Your task to perform on an android device: Turn off the flashlight Image 0: 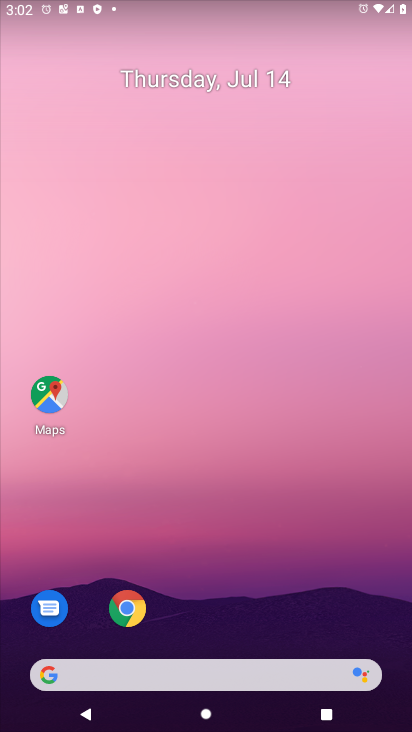
Step 0: drag from (219, 13) to (268, 481)
Your task to perform on an android device: Turn off the flashlight Image 1: 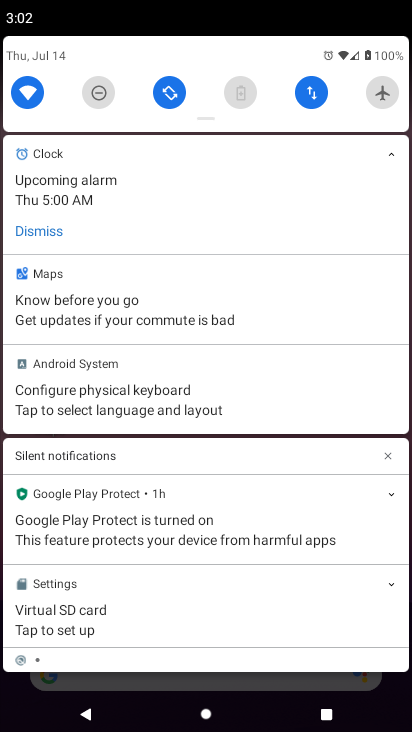
Step 1: drag from (205, 118) to (182, 404)
Your task to perform on an android device: Turn off the flashlight Image 2: 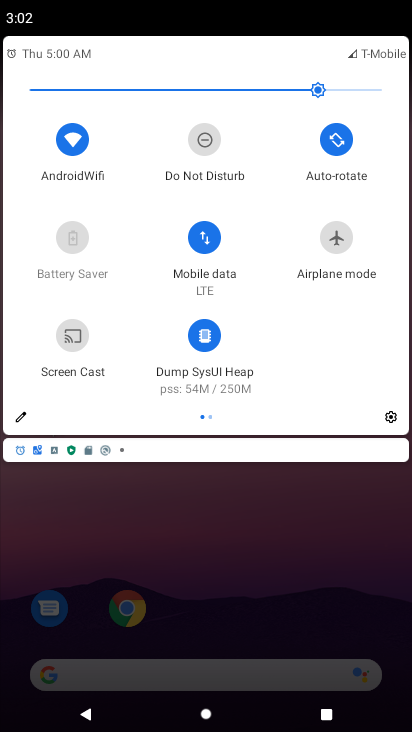
Step 2: click (15, 415)
Your task to perform on an android device: Turn off the flashlight Image 3: 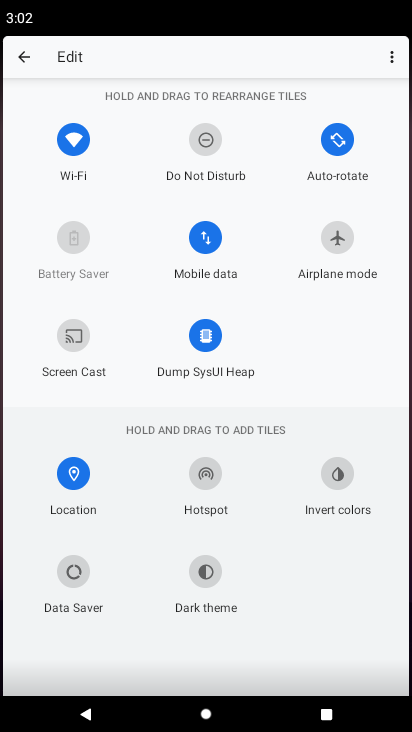
Step 3: task complete